Your task to perform on an android device: Open calendar and show me the second week of next month Image 0: 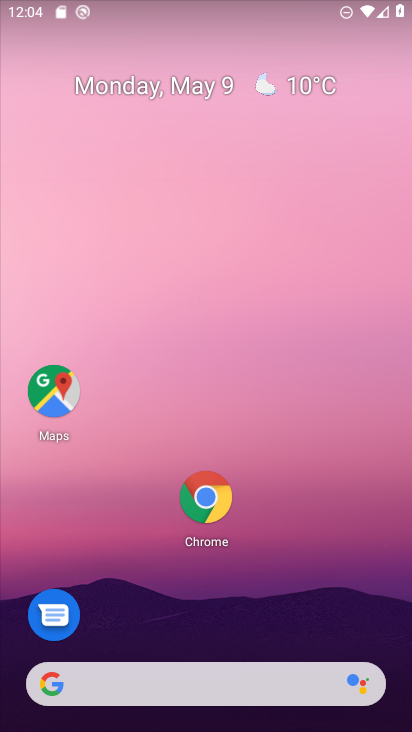
Step 0: drag from (370, 595) to (348, 81)
Your task to perform on an android device: Open calendar and show me the second week of next month Image 1: 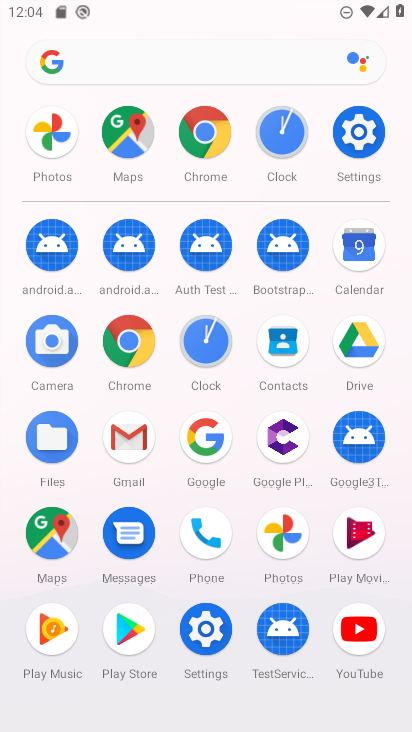
Step 1: click (350, 239)
Your task to perform on an android device: Open calendar and show me the second week of next month Image 2: 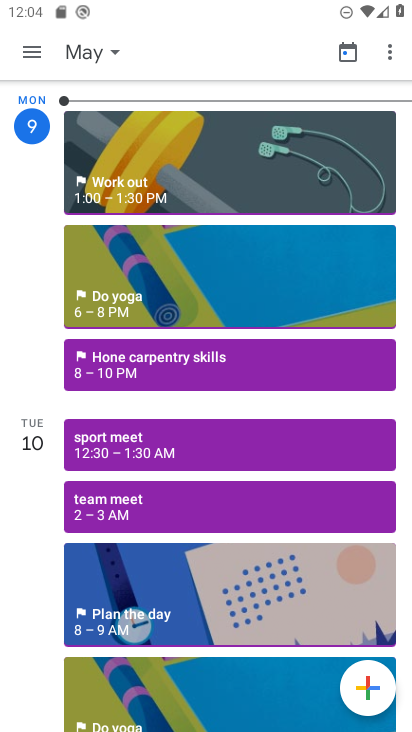
Step 2: click (84, 61)
Your task to perform on an android device: Open calendar and show me the second week of next month Image 3: 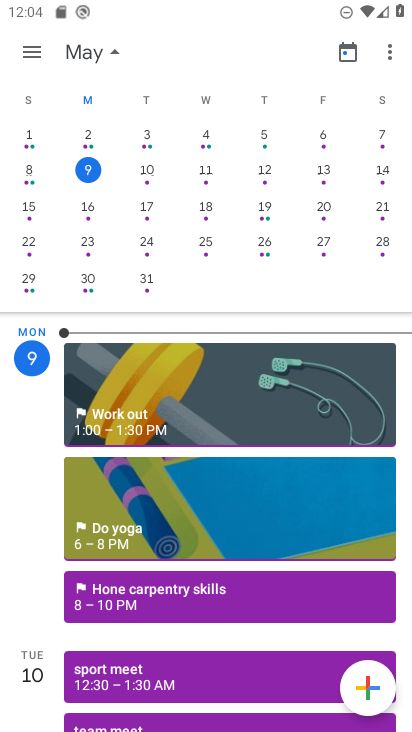
Step 3: drag from (353, 197) to (40, 204)
Your task to perform on an android device: Open calendar and show me the second week of next month Image 4: 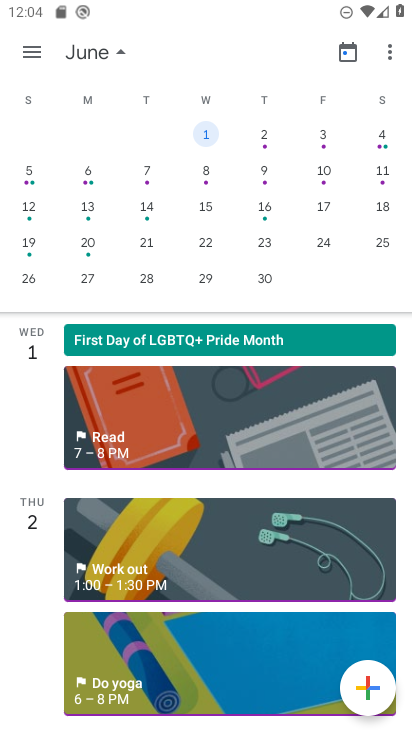
Step 4: click (149, 206)
Your task to perform on an android device: Open calendar and show me the second week of next month Image 5: 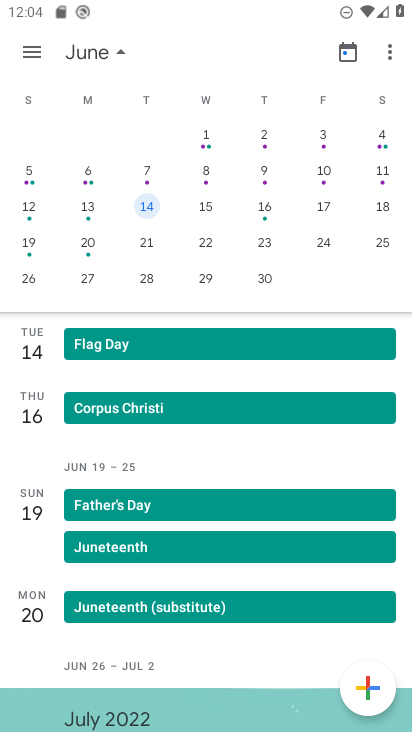
Step 5: task complete